Your task to perform on an android device: turn off priority inbox in the gmail app Image 0: 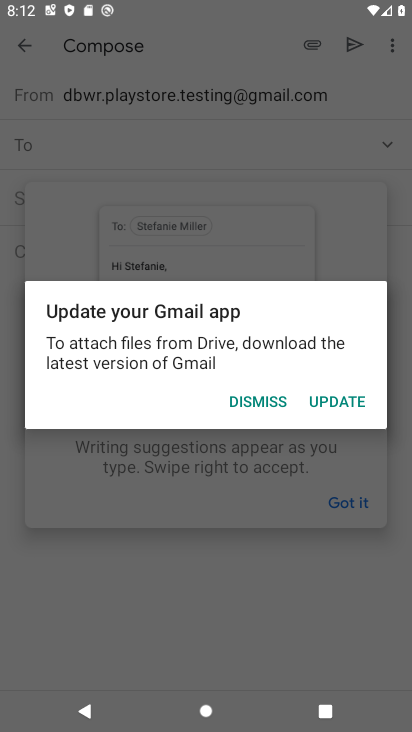
Step 0: press home button
Your task to perform on an android device: turn off priority inbox in the gmail app Image 1: 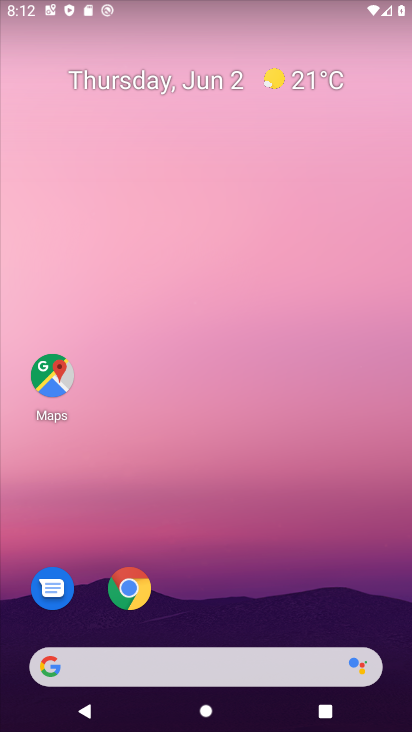
Step 1: drag from (224, 649) to (193, 159)
Your task to perform on an android device: turn off priority inbox in the gmail app Image 2: 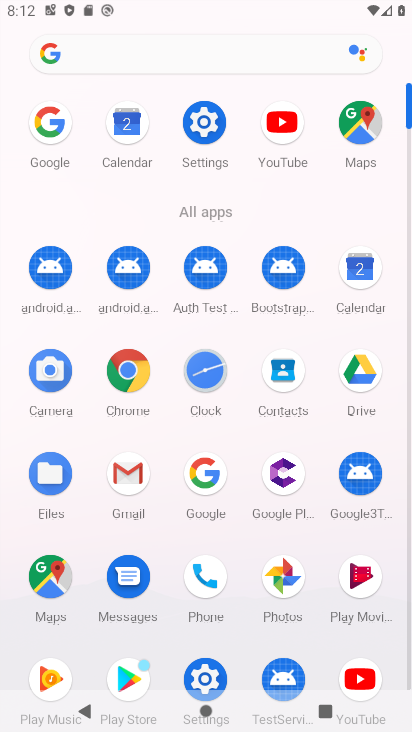
Step 2: click (129, 473)
Your task to perform on an android device: turn off priority inbox in the gmail app Image 3: 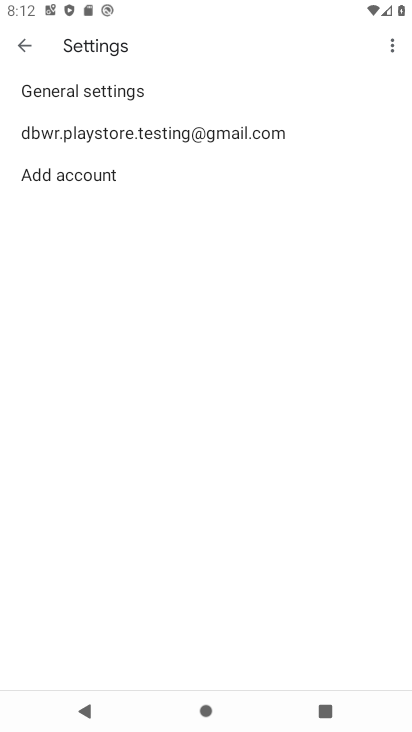
Step 3: click (125, 131)
Your task to perform on an android device: turn off priority inbox in the gmail app Image 4: 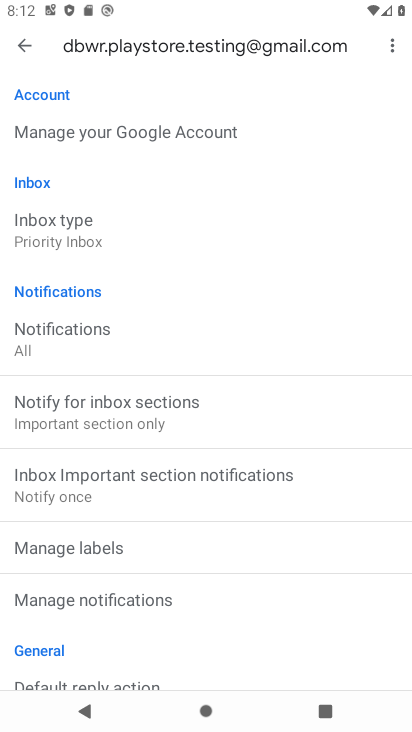
Step 4: click (97, 216)
Your task to perform on an android device: turn off priority inbox in the gmail app Image 5: 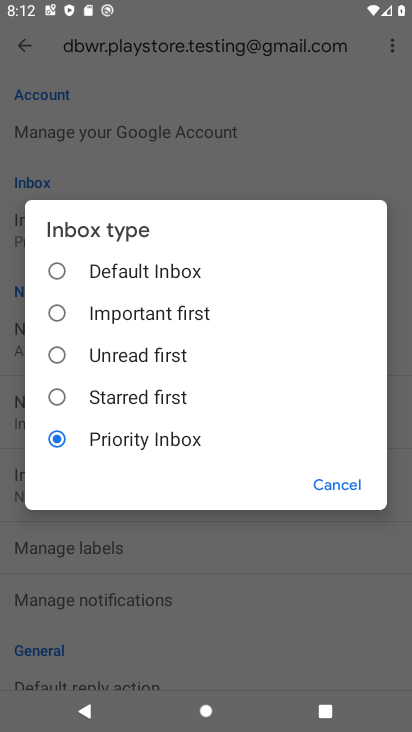
Step 5: click (135, 272)
Your task to perform on an android device: turn off priority inbox in the gmail app Image 6: 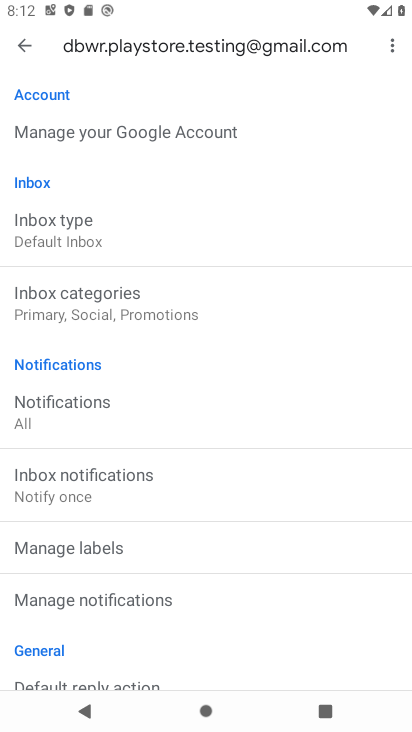
Step 6: task complete